Your task to perform on an android device: open app "Google Play Music" Image 0: 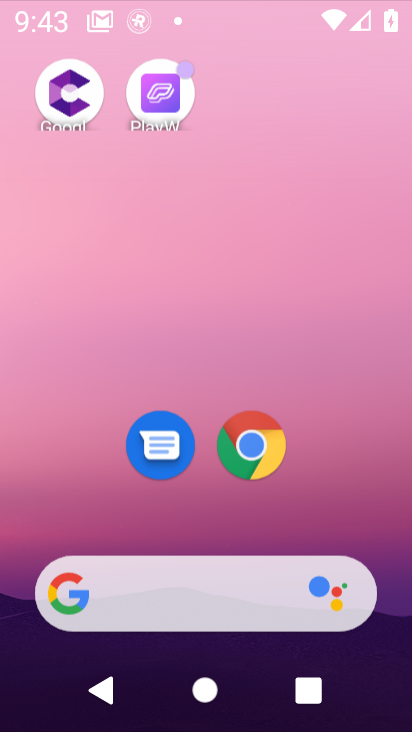
Step 0: click (316, 106)
Your task to perform on an android device: open app "Google Play Music" Image 1: 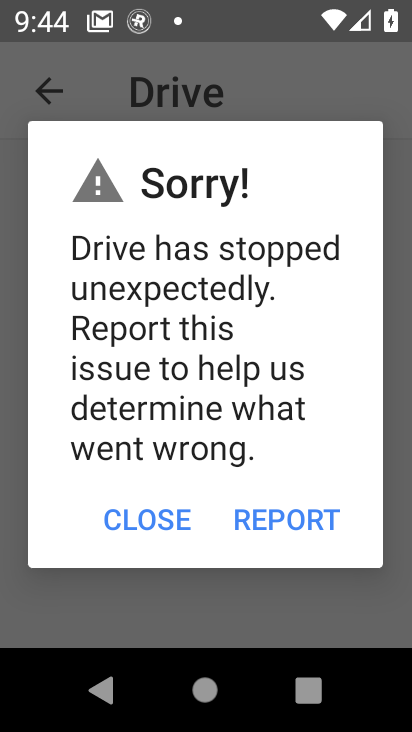
Step 1: press home button
Your task to perform on an android device: open app "Google Play Music" Image 2: 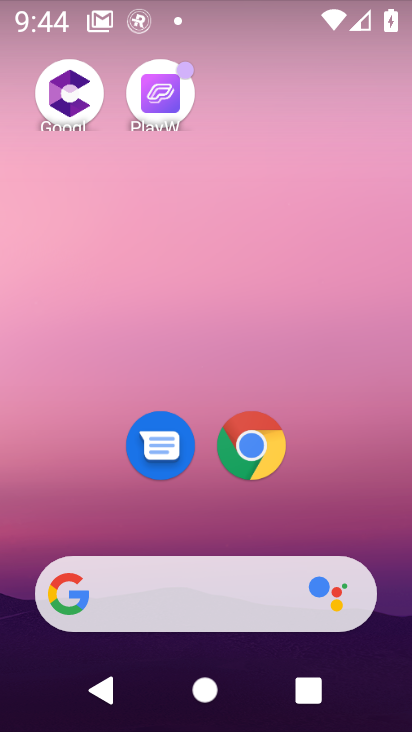
Step 2: drag from (202, 478) to (251, 150)
Your task to perform on an android device: open app "Google Play Music" Image 3: 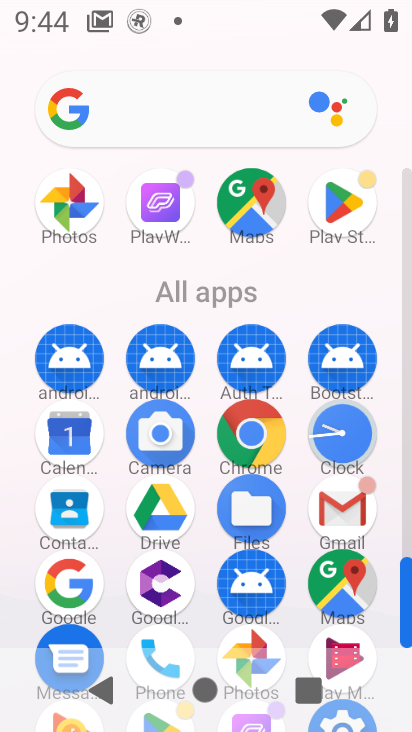
Step 3: click (342, 196)
Your task to perform on an android device: open app "Google Play Music" Image 4: 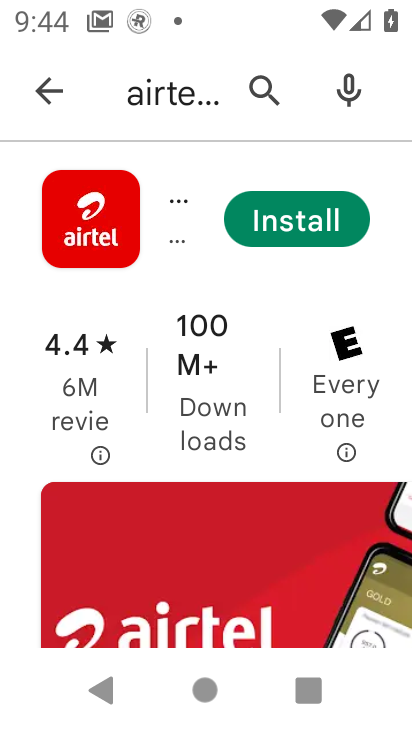
Step 4: click (48, 90)
Your task to perform on an android device: open app "Google Play Music" Image 5: 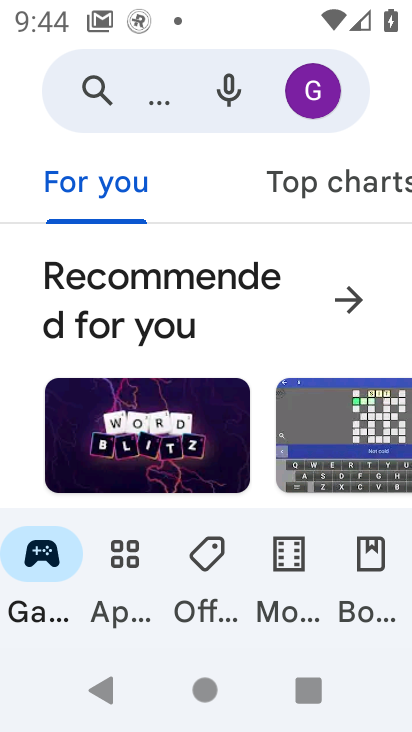
Step 5: click (95, 94)
Your task to perform on an android device: open app "Google Play Music" Image 6: 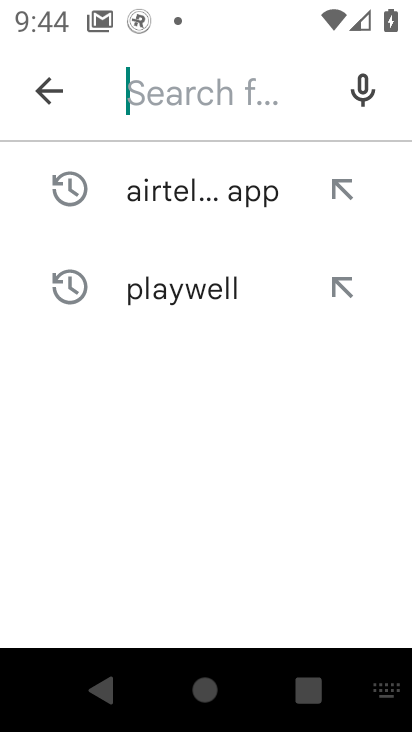
Step 6: type "Google Play Music"
Your task to perform on an android device: open app "Google Play Music" Image 7: 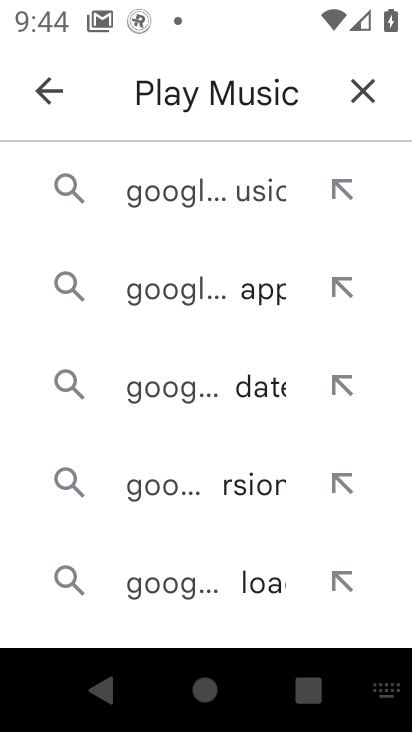
Step 7: click (142, 189)
Your task to perform on an android device: open app "Google Play Music" Image 8: 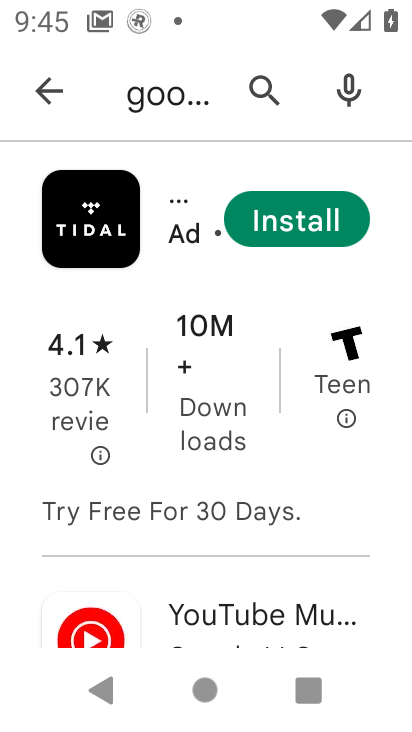
Step 8: task complete